Your task to perform on an android device: Open the calendar and show me this week's events Image 0: 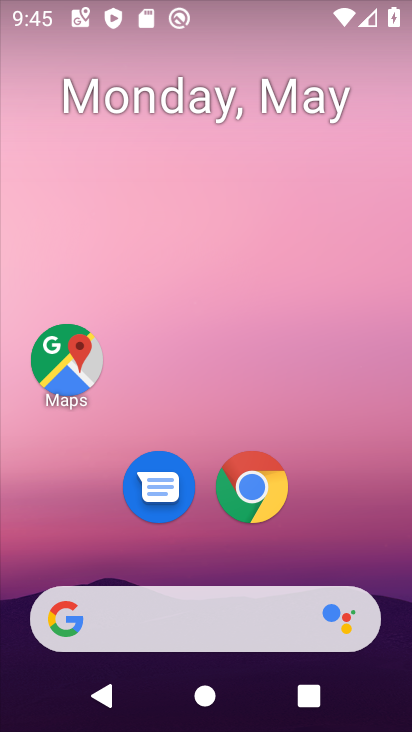
Step 0: drag from (313, 558) to (249, 133)
Your task to perform on an android device: Open the calendar and show me this week's events Image 1: 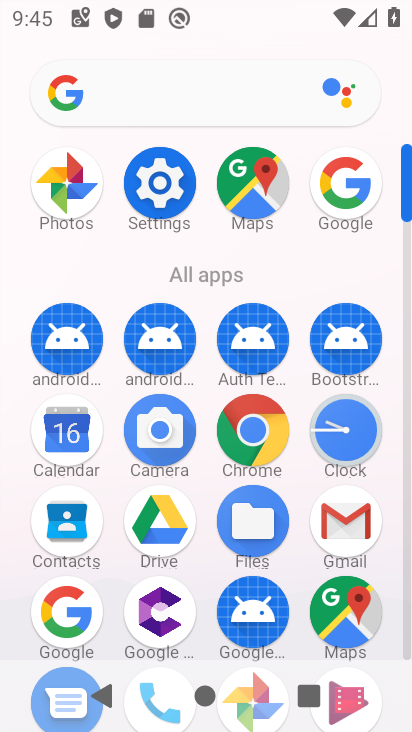
Step 1: click (71, 443)
Your task to perform on an android device: Open the calendar and show me this week's events Image 2: 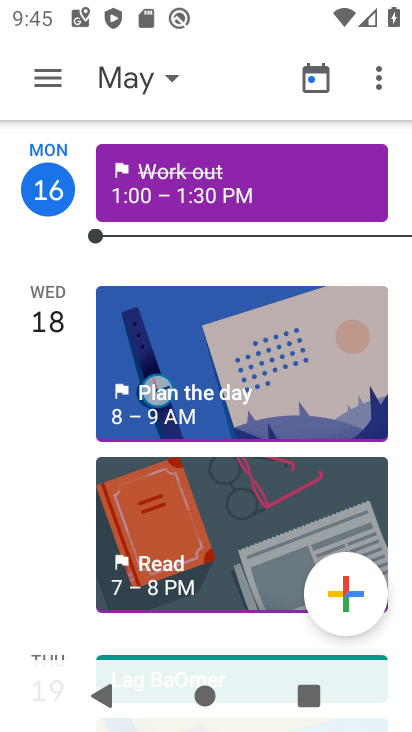
Step 2: click (166, 85)
Your task to perform on an android device: Open the calendar and show me this week's events Image 3: 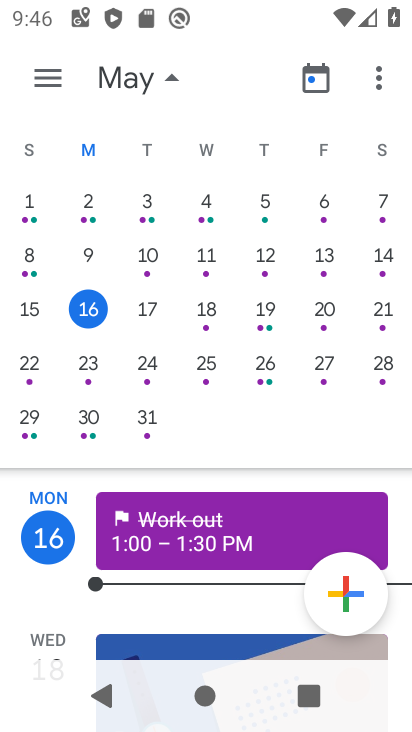
Step 3: task complete